Your task to perform on an android device: change notifications settings Image 0: 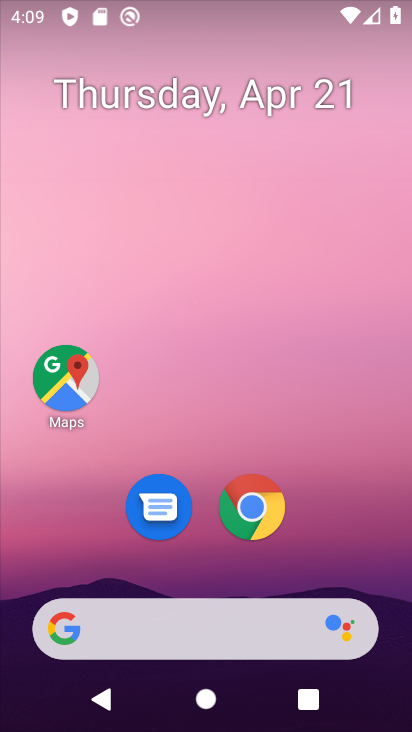
Step 0: drag from (343, 556) to (339, 160)
Your task to perform on an android device: change notifications settings Image 1: 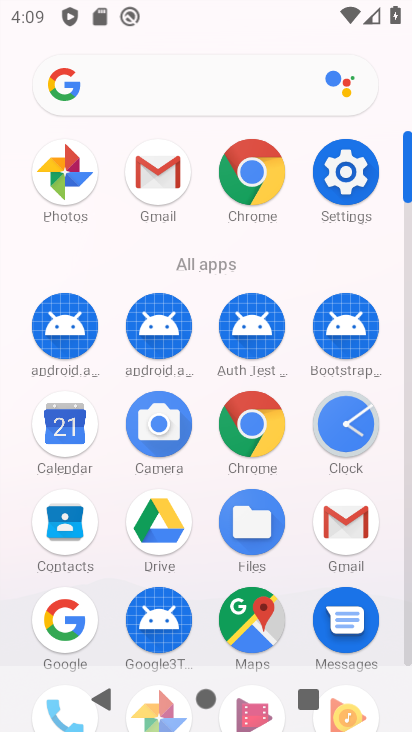
Step 1: click (344, 199)
Your task to perform on an android device: change notifications settings Image 2: 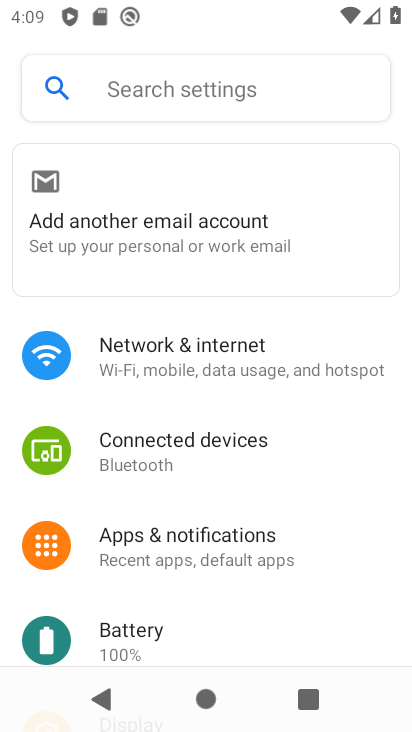
Step 2: click (251, 549)
Your task to perform on an android device: change notifications settings Image 3: 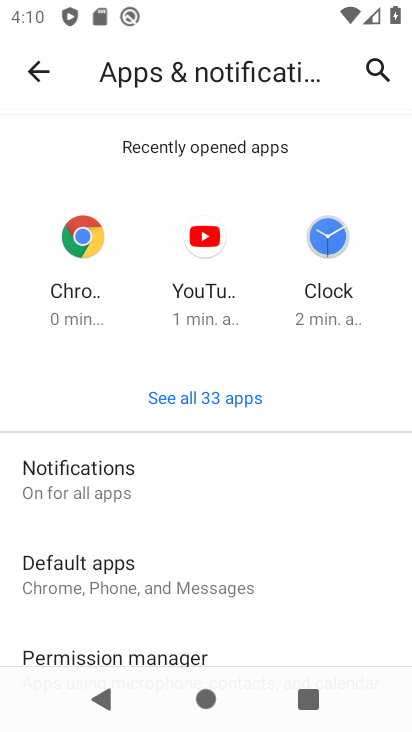
Step 3: click (210, 502)
Your task to perform on an android device: change notifications settings Image 4: 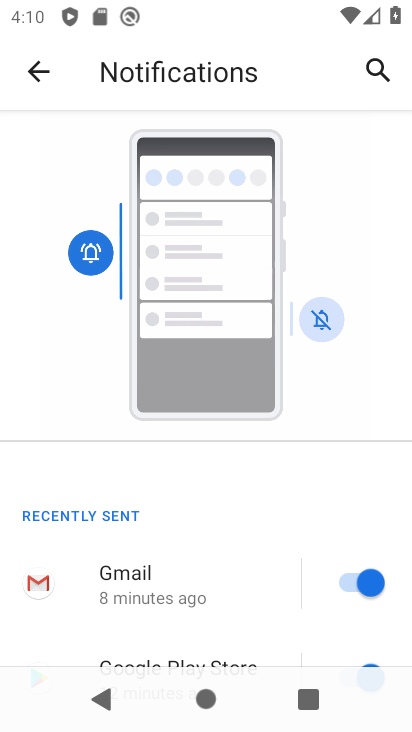
Step 4: drag from (250, 634) to (325, 75)
Your task to perform on an android device: change notifications settings Image 5: 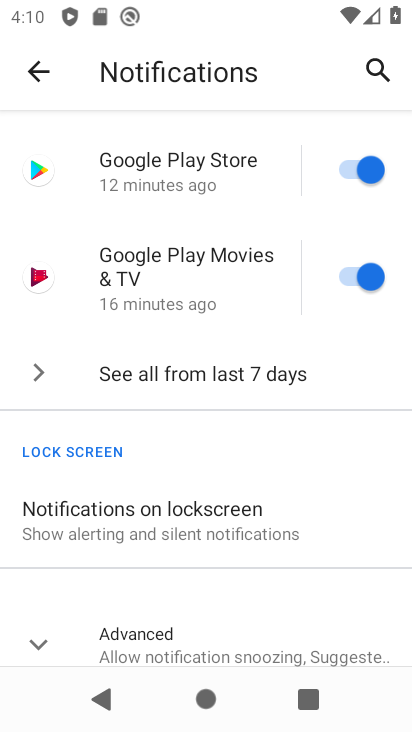
Step 5: drag from (268, 532) to (245, 311)
Your task to perform on an android device: change notifications settings Image 6: 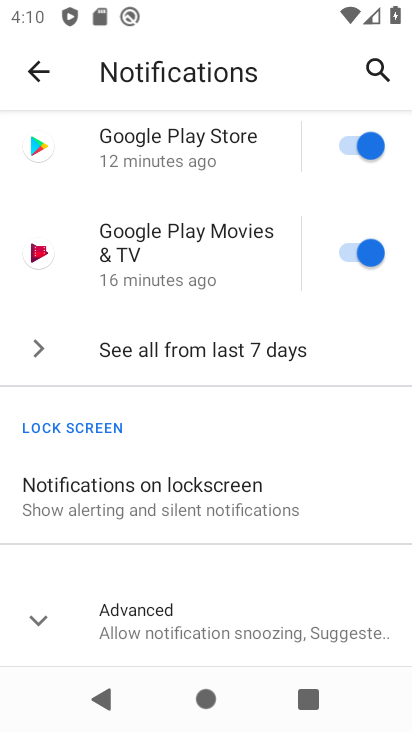
Step 6: click (235, 611)
Your task to perform on an android device: change notifications settings Image 7: 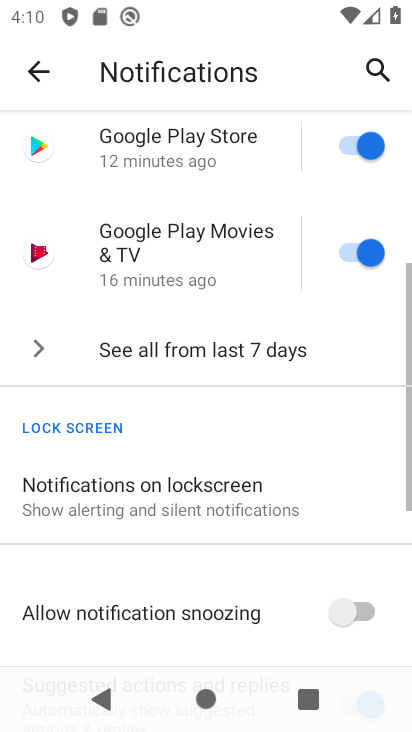
Step 7: drag from (267, 574) to (261, 297)
Your task to perform on an android device: change notifications settings Image 8: 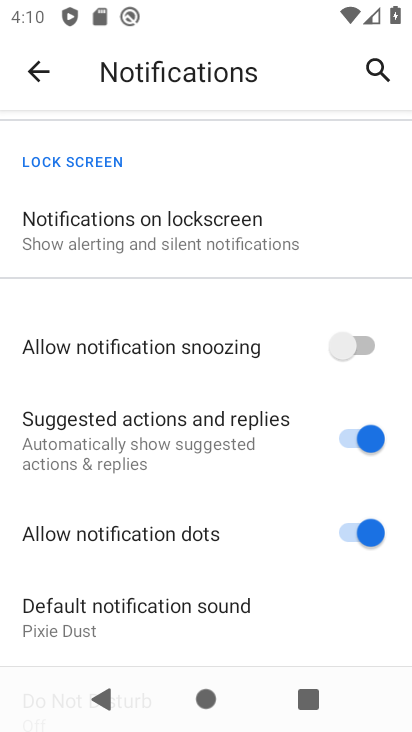
Step 8: click (352, 347)
Your task to perform on an android device: change notifications settings Image 9: 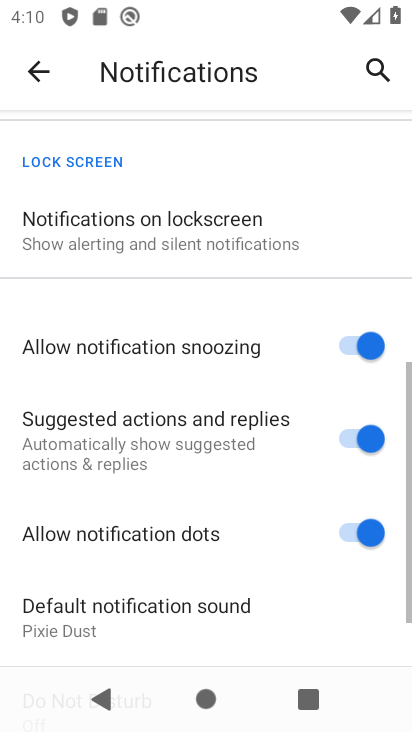
Step 9: click (351, 448)
Your task to perform on an android device: change notifications settings Image 10: 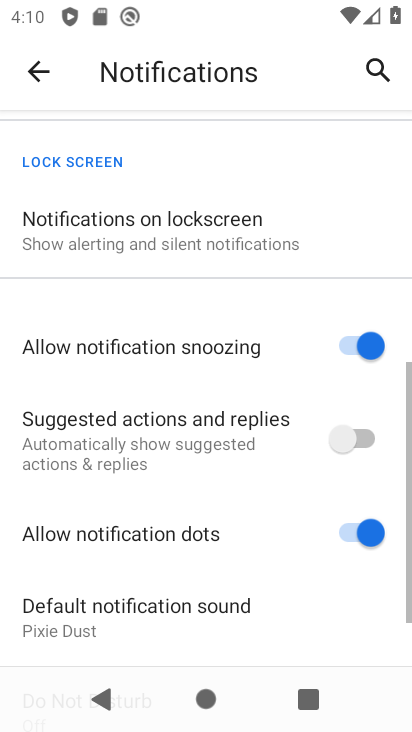
Step 10: click (362, 531)
Your task to perform on an android device: change notifications settings Image 11: 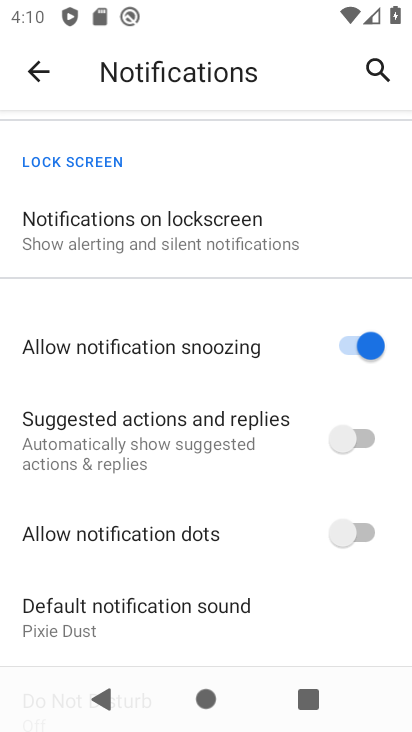
Step 11: task complete